Your task to perform on an android device: Go to Google Image 0: 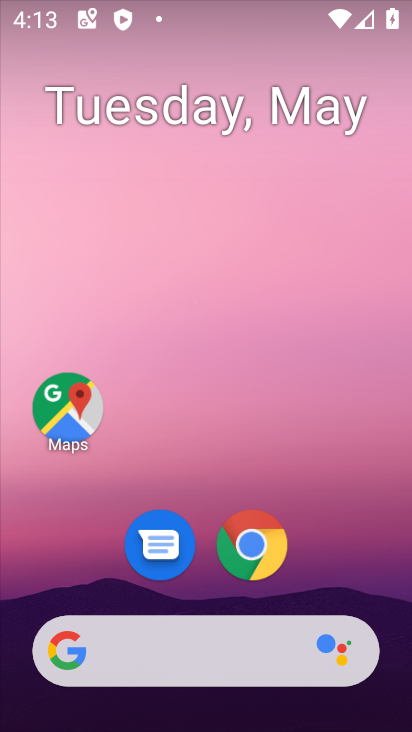
Step 0: drag from (325, 547) to (240, 62)
Your task to perform on an android device: Go to Google Image 1: 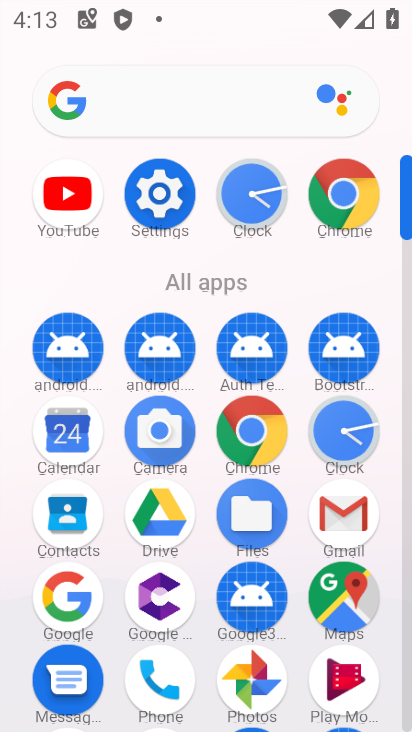
Step 1: click (60, 597)
Your task to perform on an android device: Go to Google Image 2: 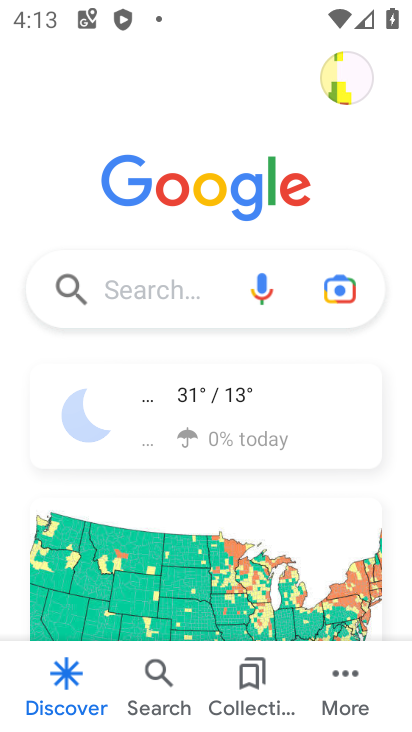
Step 2: task complete